Your task to perform on an android device: open the mobile data screen to see how much data has been used Image 0: 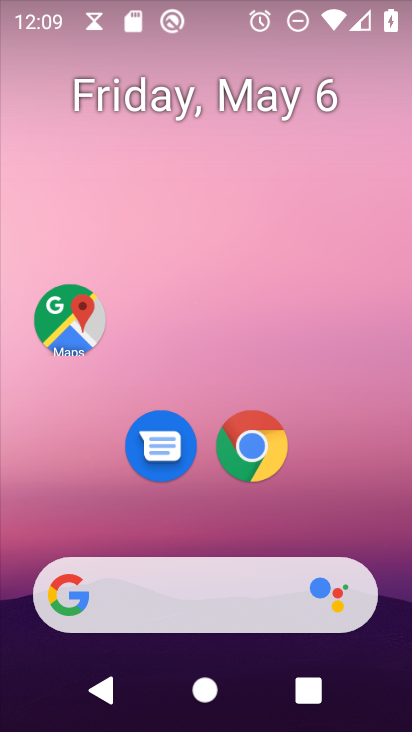
Step 0: drag from (297, 633) to (213, 246)
Your task to perform on an android device: open the mobile data screen to see how much data has been used Image 1: 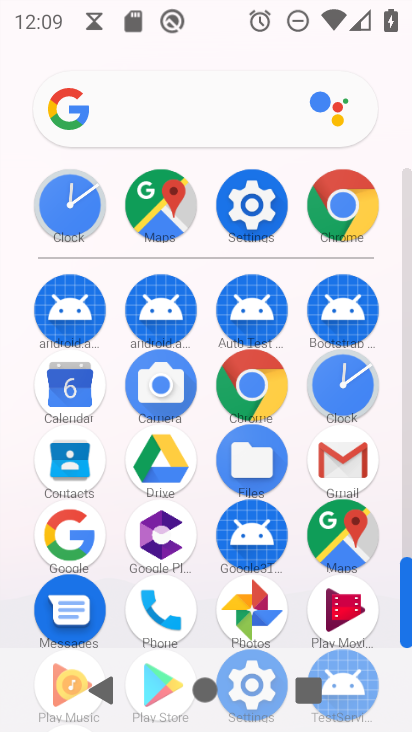
Step 1: click (239, 229)
Your task to perform on an android device: open the mobile data screen to see how much data has been used Image 2: 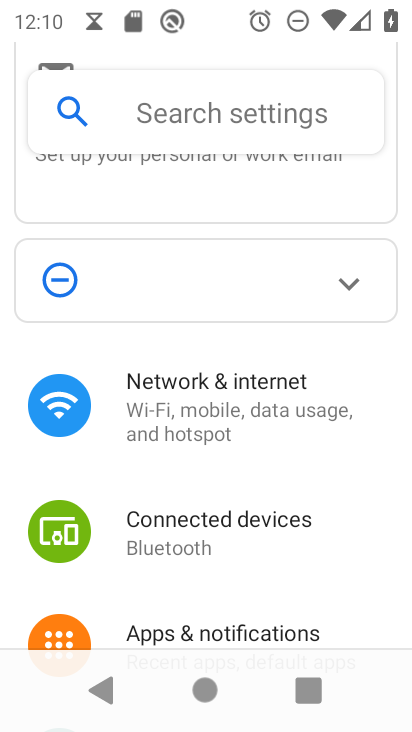
Step 2: click (182, 112)
Your task to perform on an android device: open the mobile data screen to see how much data has been used Image 3: 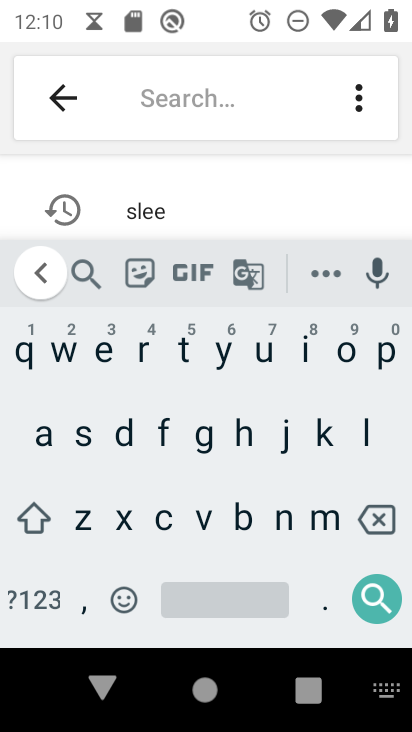
Step 3: click (122, 430)
Your task to perform on an android device: open the mobile data screen to see how much data has been used Image 4: 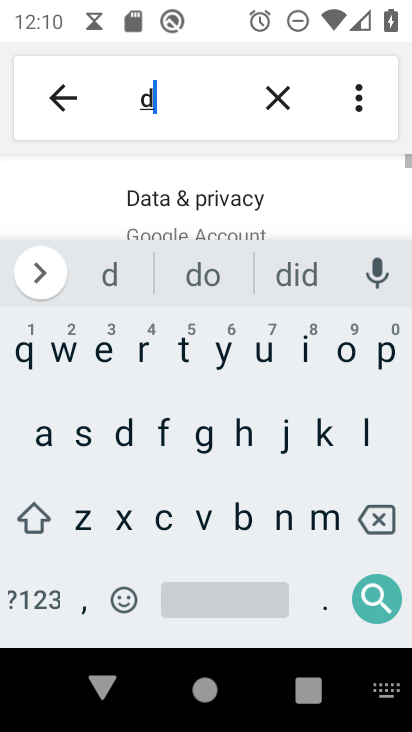
Step 4: click (37, 423)
Your task to perform on an android device: open the mobile data screen to see how much data has been used Image 5: 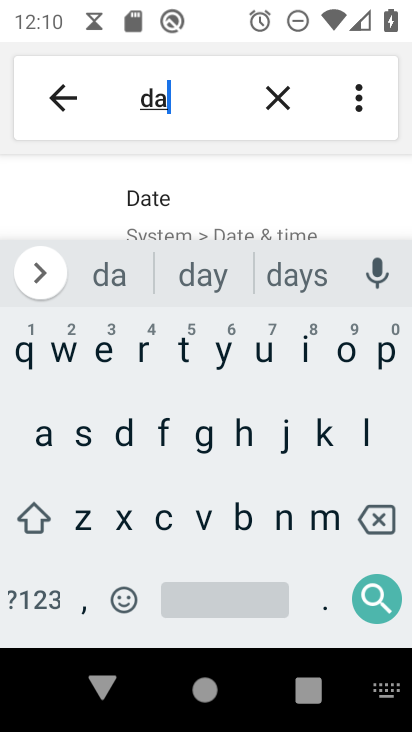
Step 5: click (178, 358)
Your task to perform on an android device: open the mobile data screen to see how much data has been used Image 6: 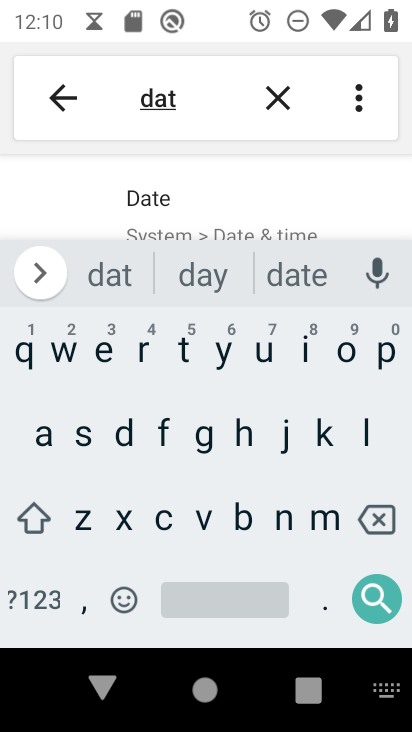
Step 6: click (40, 435)
Your task to perform on an android device: open the mobile data screen to see how much data has been used Image 7: 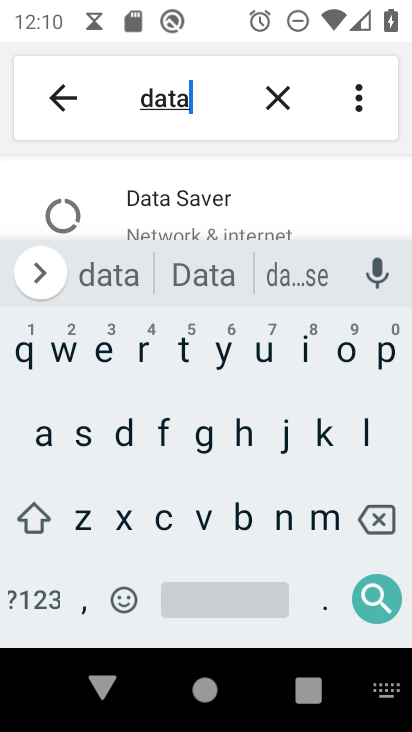
Step 7: click (185, 605)
Your task to perform on an android device: open the mobile data screen to see how much data has been used Image 8: 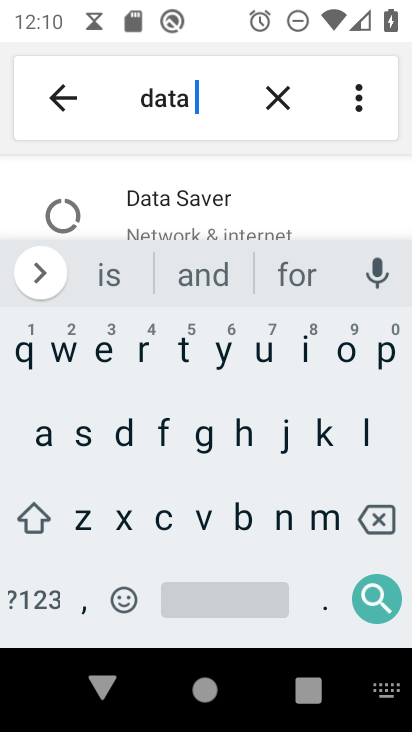
Step 8: click (253, 357)
Your task to perform on an android device: open the mobile data screen to see how much data has been used Image 9: 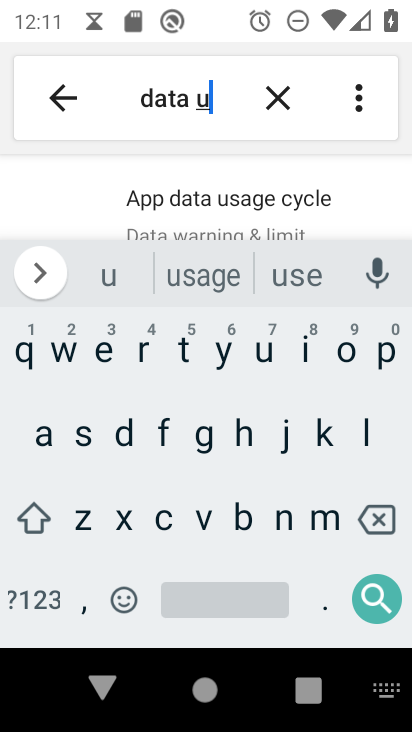
Step 9: press back button
Your task to perform on an android device: open the mobile data screen to see how much data has been used Image 10: 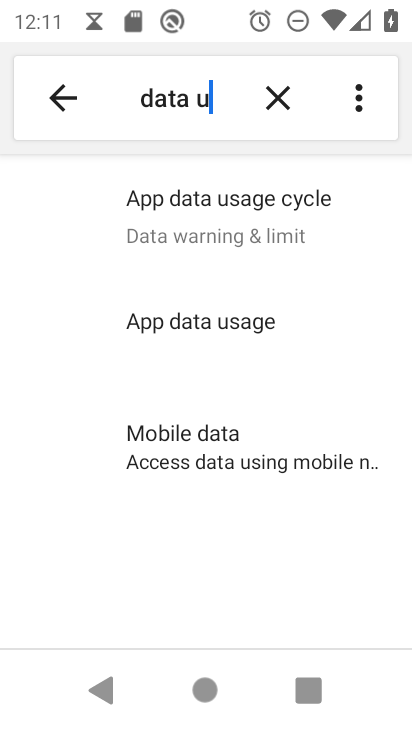
Step 10: click (191, 326)
Your task to perform on an android device: open the mobile data screen to see how much data has been used Image 11: 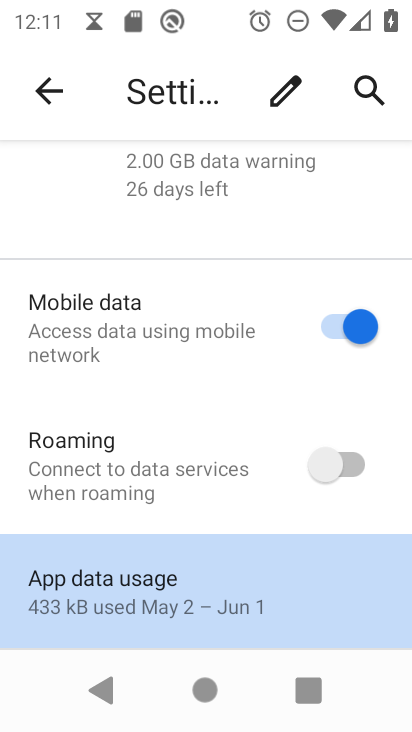
Step 11: click (136, 590)
Your task to perform on an android device: open the mobile data screen to see how much data has been used Image 12: 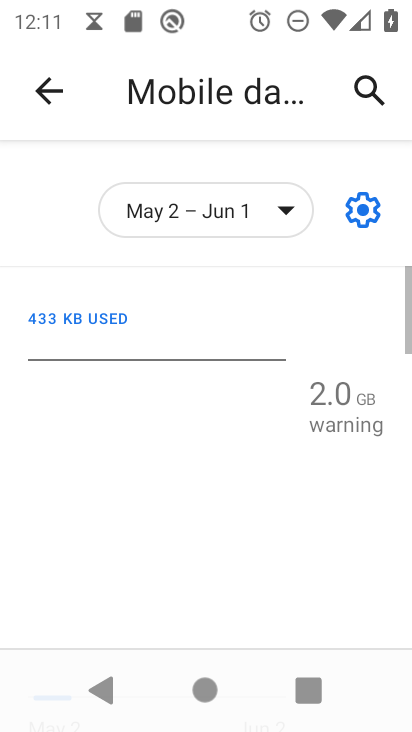
Step 12: task complete